Your task to perform on an android device: What's the weather going to be tomorrow? Image 0: 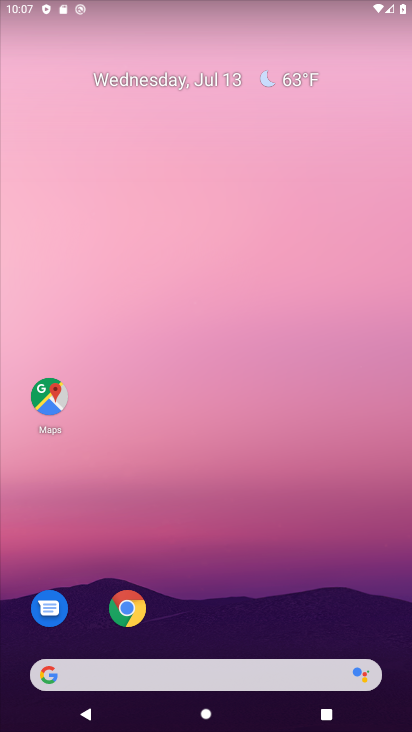
Step 0: drag from (292, 592) to (355, 28)
Your task to perform on an android device: What's the weather going to be tomorrow? Image 1: 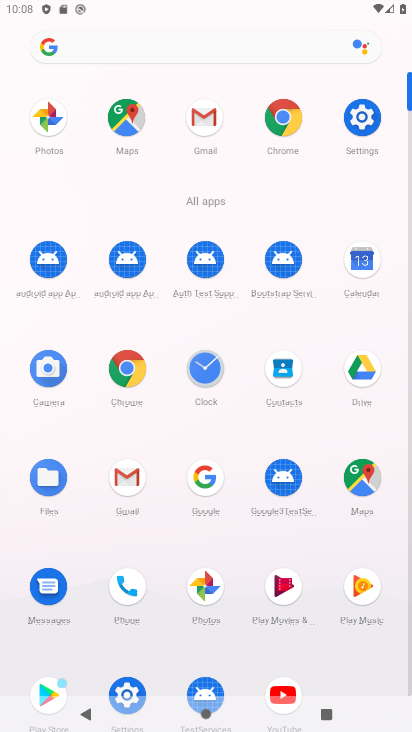
Step 1: click (135, 362)
Your task to perform on an android device: What's the weather going to be tomorrow? Image 2: 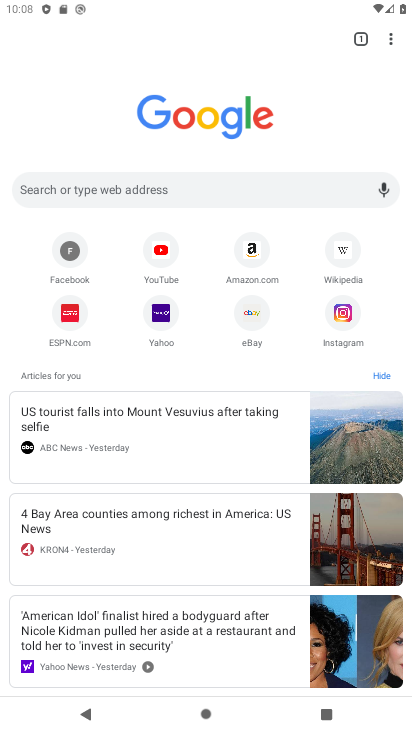
Step 2: click (184, 188)
Your task to perform on an android device: What's the weather going to be tomorrow? Image 3: 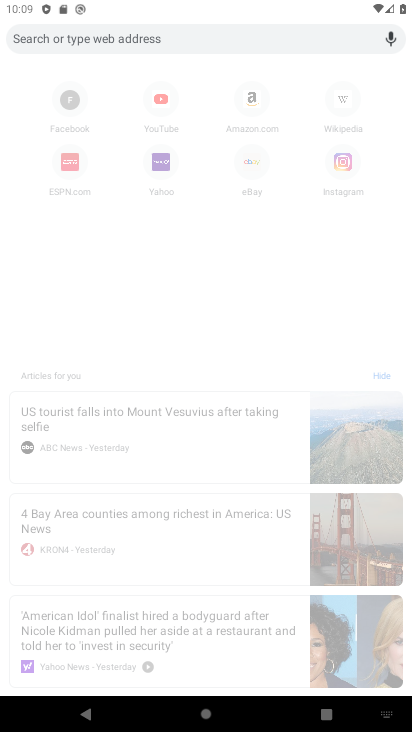
Step 3: type "What's the weather going to be tomorrow?"
Your task to perform on an android device: What's the weather going to be tomorrow? Image 4: 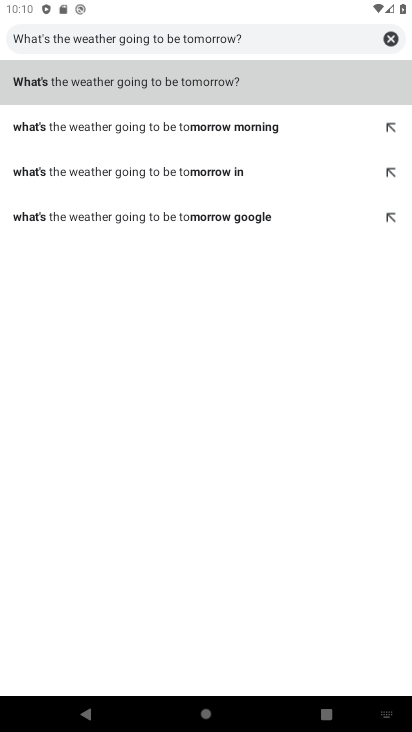
Step 4: click (172, 76)
Your task to perform on an android device: What's the weather going to be tomorrow? Image 5: 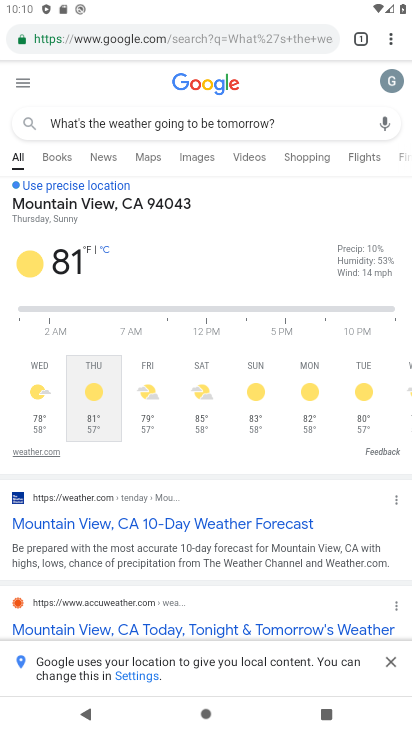
Step 5: task complete